Your task to perform on an android device: Search for Italian restaurants on Maps Image 0: 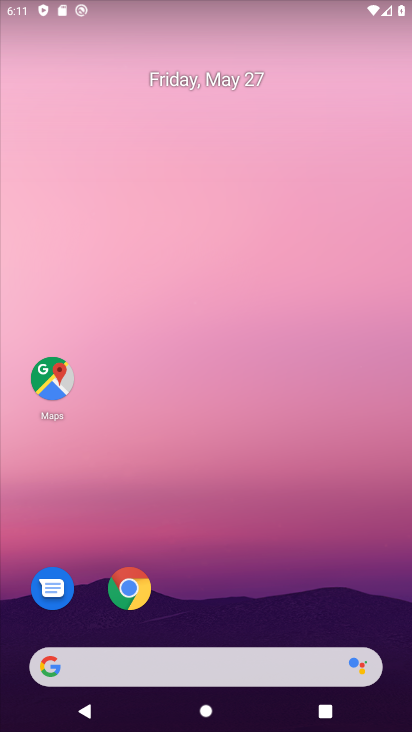
Step 0: drag from (249, 576) to (143, 79)
Your task to perform on an android device: Search for Italian restaurants on Maps Image 1: 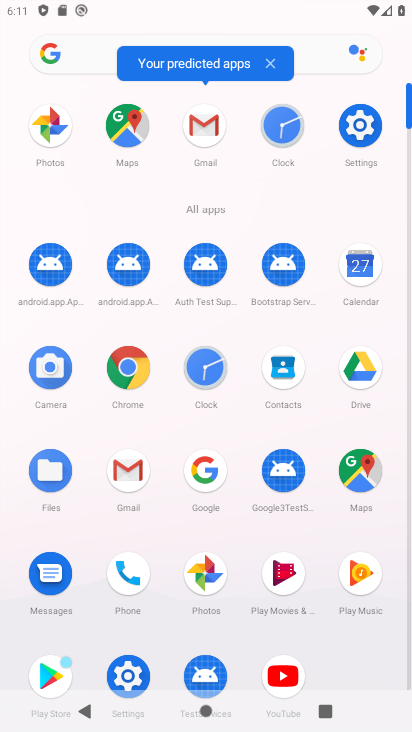
Step 1: click (123, 134)
Your task to perform on an android device: Search for Italian restaurants on Maps Image 2: 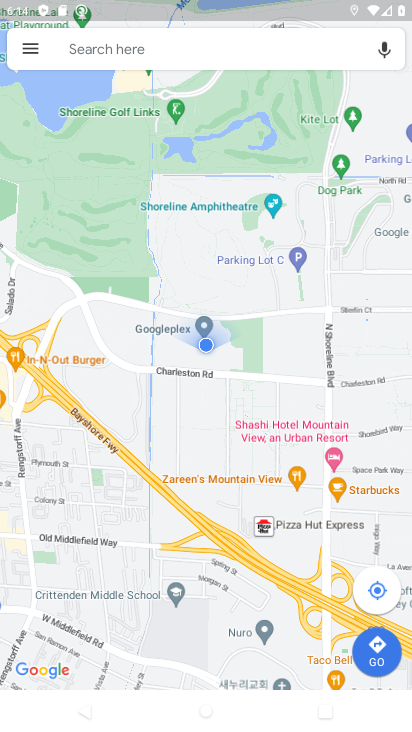
Step 2: type " Italian restaurants "
Your task to perform on an android device: Search for Italian restaurants on Maps Image 3: 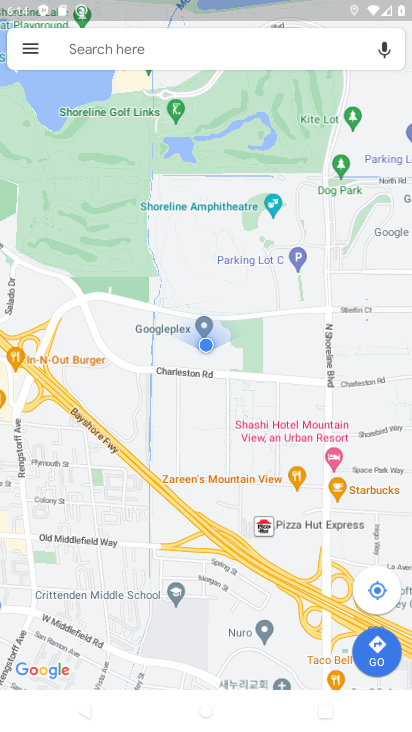
Step 3: click (136, 48)
Your task to perform on an android device: Search for Italian restaurants on Maps Image 4: 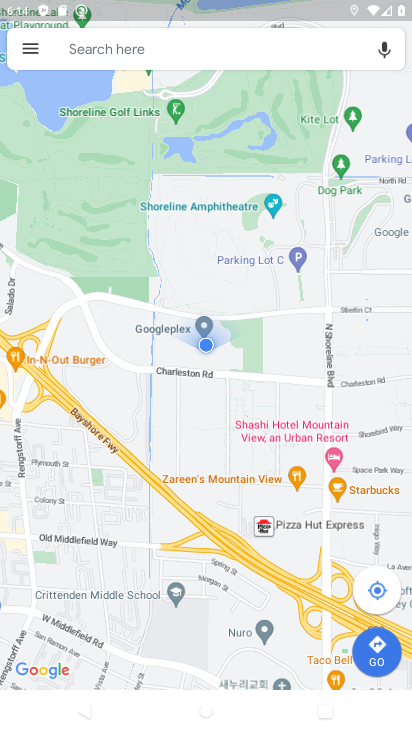
Step 4: click (136, 48)
Your task to perform on an android device: Search for Italian restaurants on Maps Image 5: 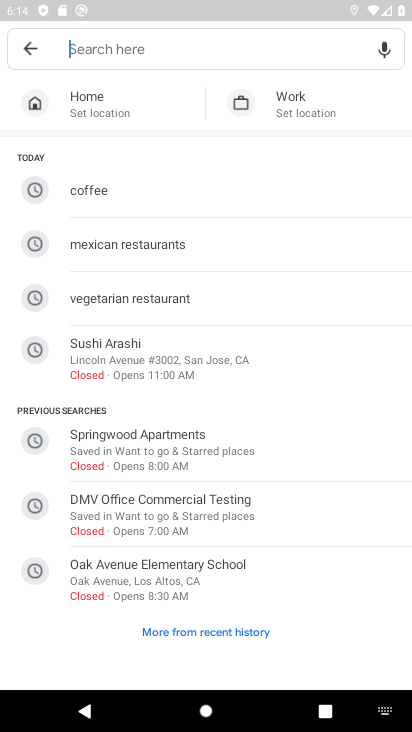
Step 5: type " Italian restaurants "
Your task to perform on an android device: Search for Italian restaurants on Maps Image 6: 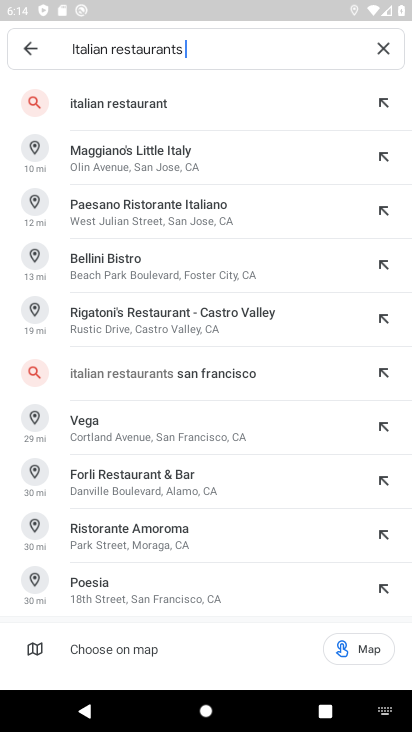
Step 6: click (130, 108)
Your task to perform on an android device: Search for Italian restaurants on Maps Image 7: 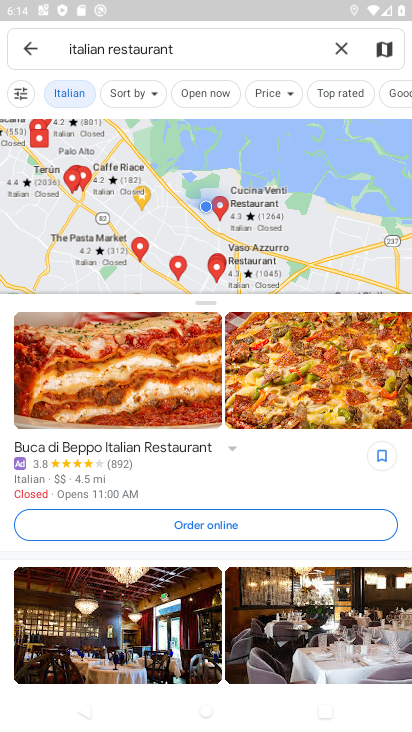
Step 7: task complete